Your task to perform on an android device: Open settings Image 0: 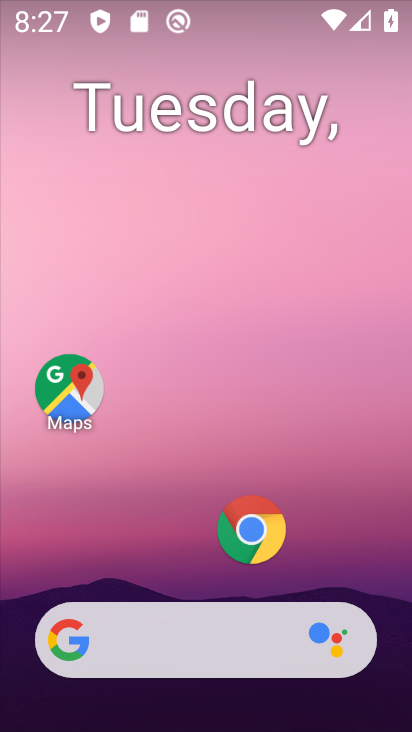
Step 0: press home button
Your task to perform on an android device: Open settings Image 1: 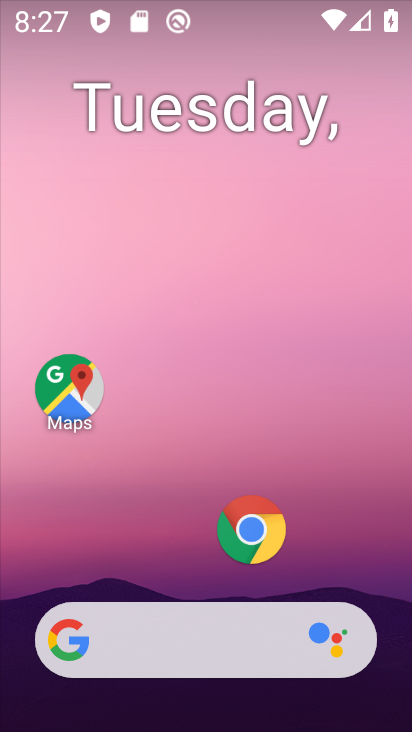
Step 1: drag from (199, 573) to (243, 84)
Your task to perform on an android device: Open settings Image 2: 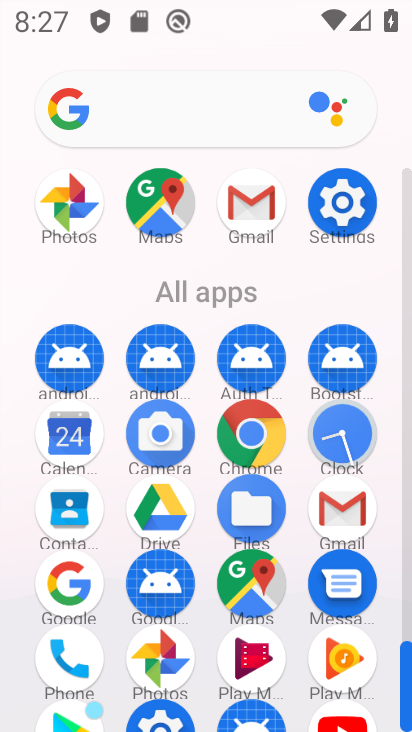
Step 2: click (337, 193)
Your task to perform on an android device: Open settings Image 3: 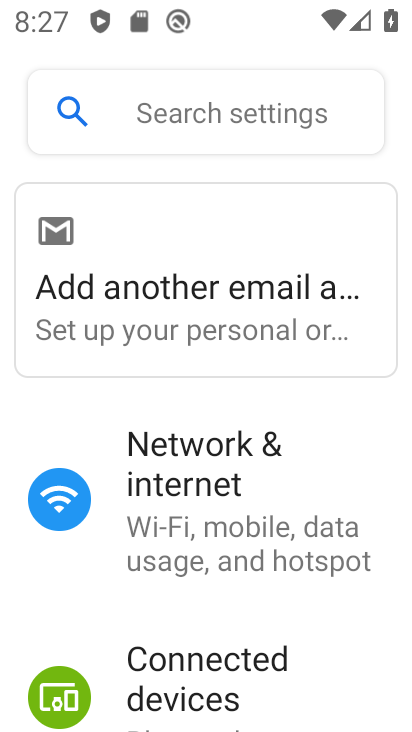
Step 3: task complete